Your task to perform on an android device: Open settings on Google Maps Image 0: 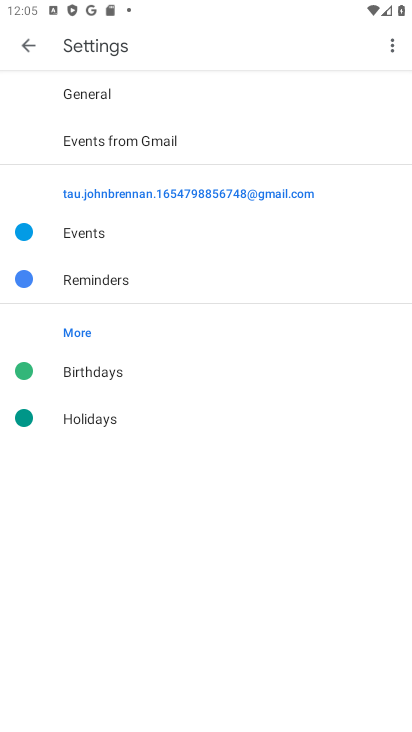
Step 0: press home button
Your task to perform on an android device: Open settings on Google Maps Image 1: 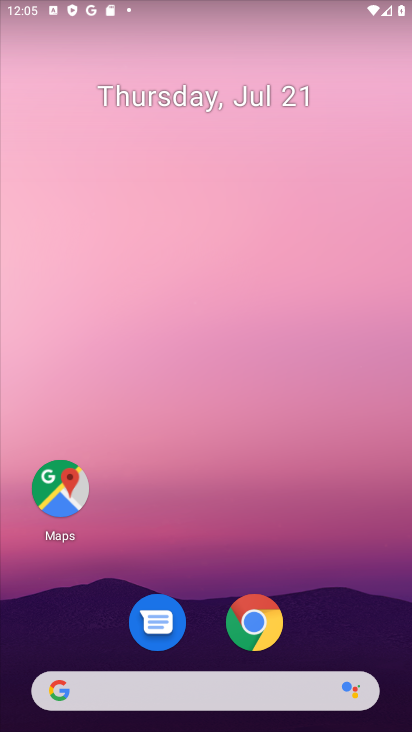
Step 1: click (69, 493)
Your task to perform on an android device: Open settings on Google Maps Image 2: 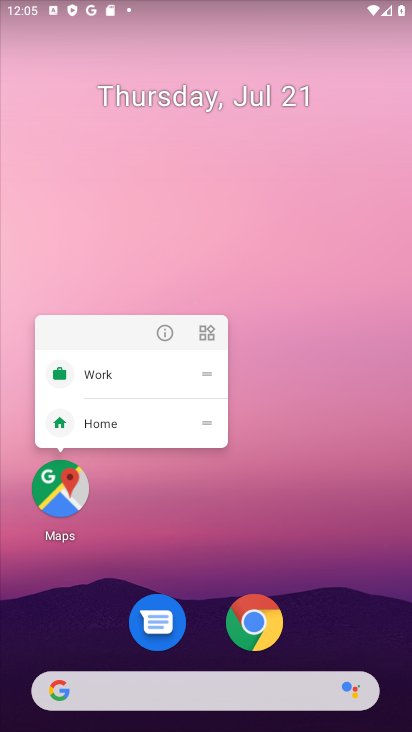
Step 2: click (70, 494)
Your task to perform on an android device: Open settings on Google Maps Image 3: 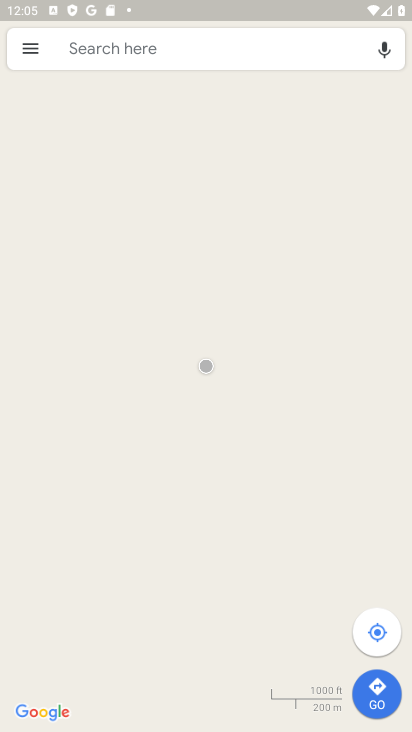
Step 3: click (27, 59)
Your task to perform on an android device: Open settings on Google Maps Image 4: 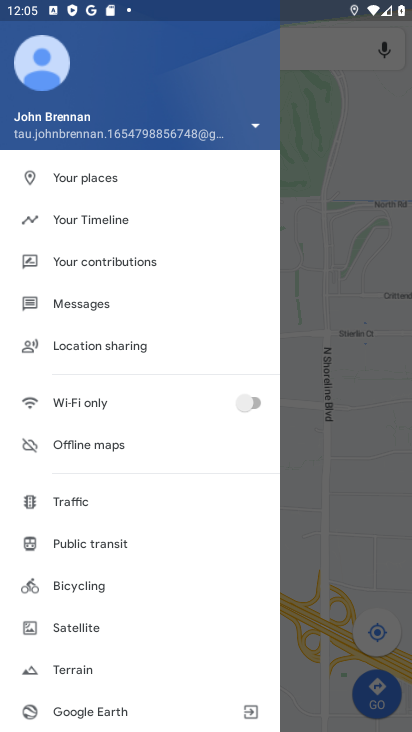
Step 4: drag from (92, 588) to (151, 418)
Your task to perform on an android device: Open settings on Google Maps Image 5: 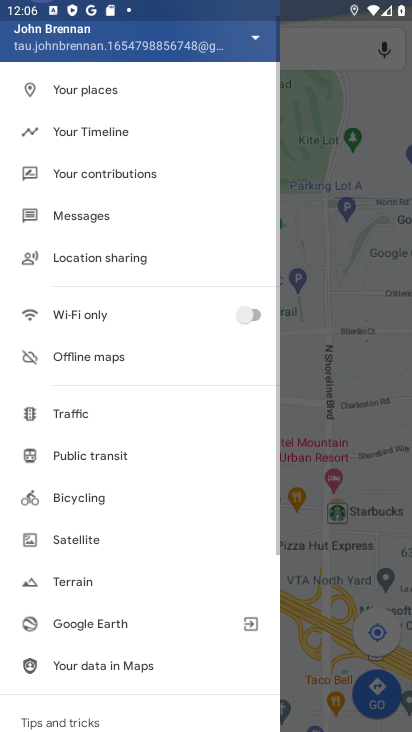
Step 5: drag from (102, 627) to (160, 485)
Your task to perform on an android device: Open settings on Google Maps Image 6: 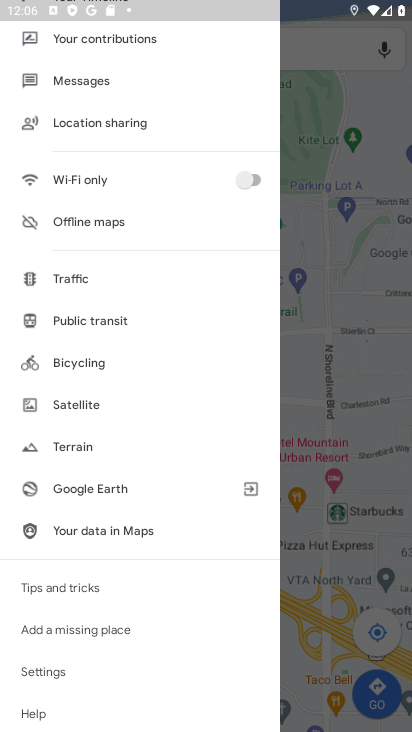
Step 6: click (78, 670)
Your task to perform on an android device: Open settings on Google Maps Image 7: 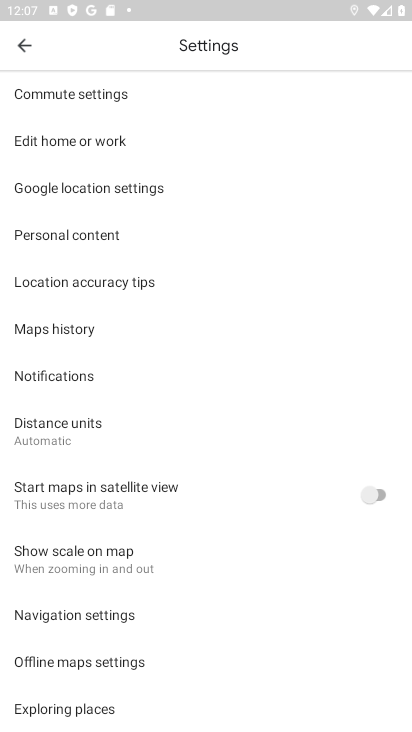
Step 7: task complete